Your task to perform on an android device: create a new album in the google photos Image 0: 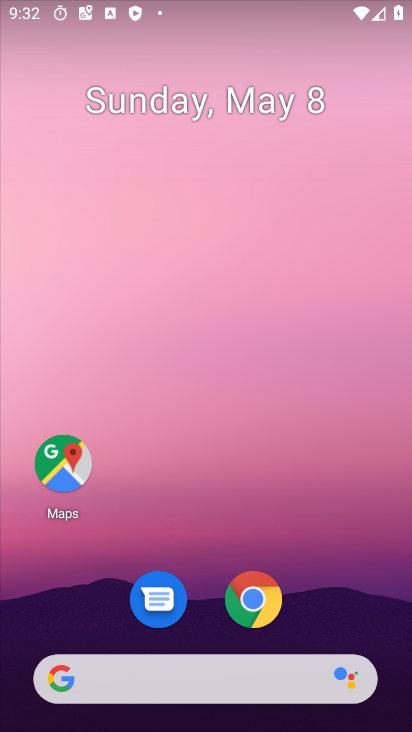
Step 0: drag from (186, 625) to (249, 51)
Your task to perform on an android device: create a new album in the google photos Image 1: 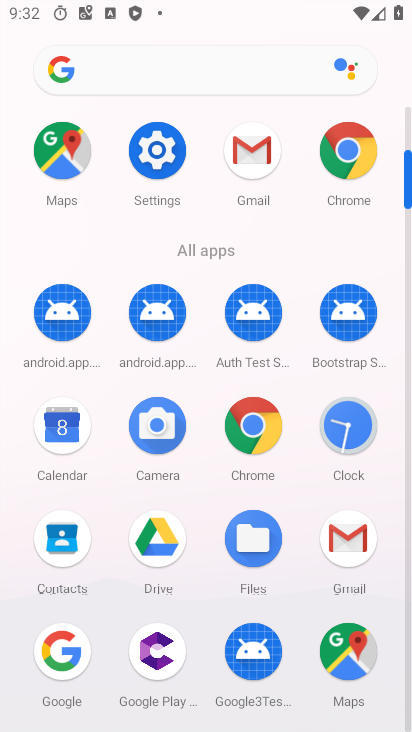
Step 1: drag from (261, 492) to (252, 109)
Your task to perform on an android device: create a new album in the google photos Image 2: 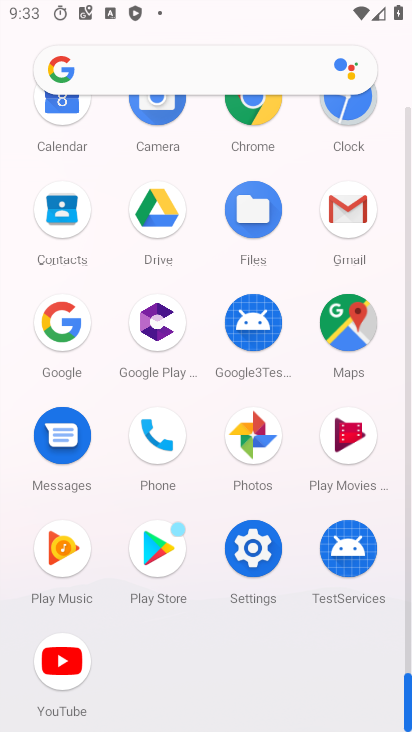
Step 2: click (237, 474)
Your task to perform on an android device: create a new album in the google photos Image 3: 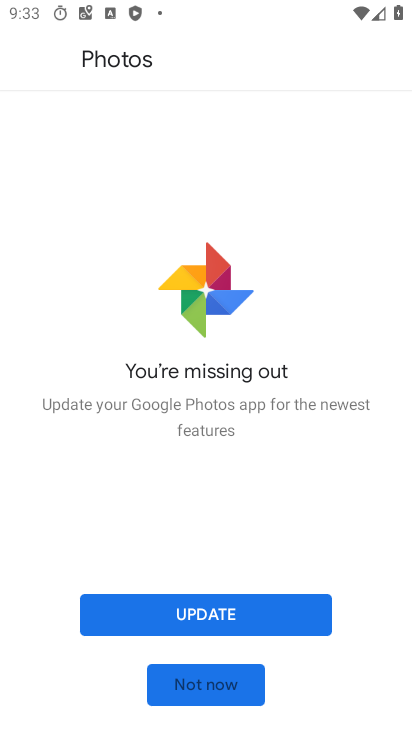
Step 3: click (222, 690)
Your task to perform on an android device: create a new album in the google photos Image 4: 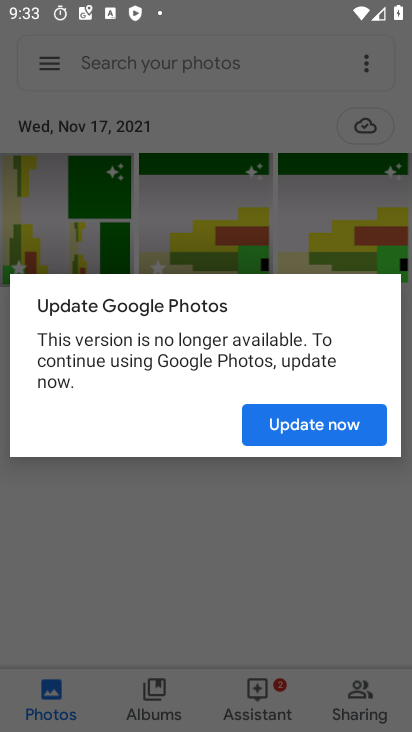
Step 4: task complete